Your task to perform on an android device: toggle priority inbox in the gmail app Image 0: 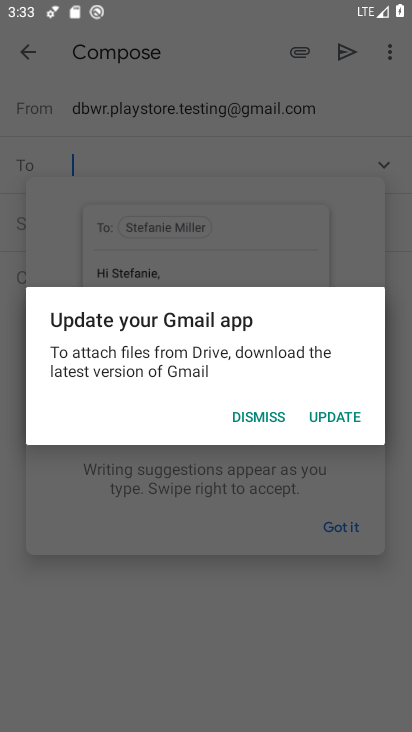
Step 0: press home button
Your task to perform on an android device: toggle priority inbox in the gmail app Image 1: 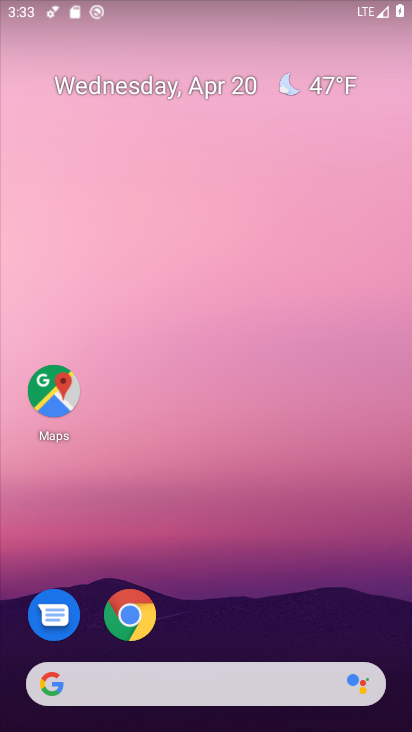
Step 1: drag from (217, 555) to (220, 234)
Your task to perform on an android device: toggle priority inbox in the gmail app Image 2: 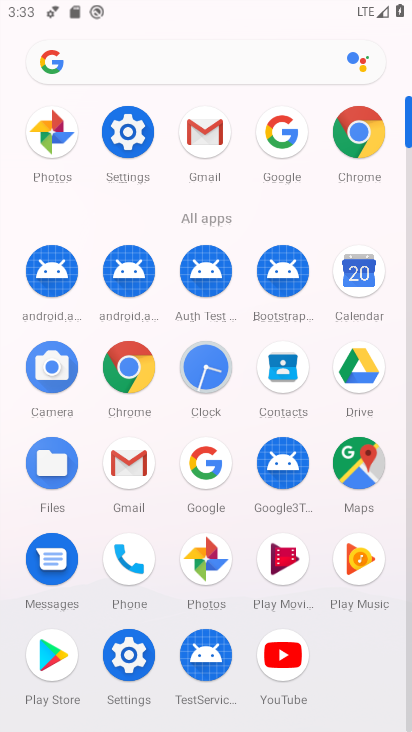
Step 2: click (206, 143)
Your task to perform on an android device: toggle priority inbox in the gmail app Image 3: 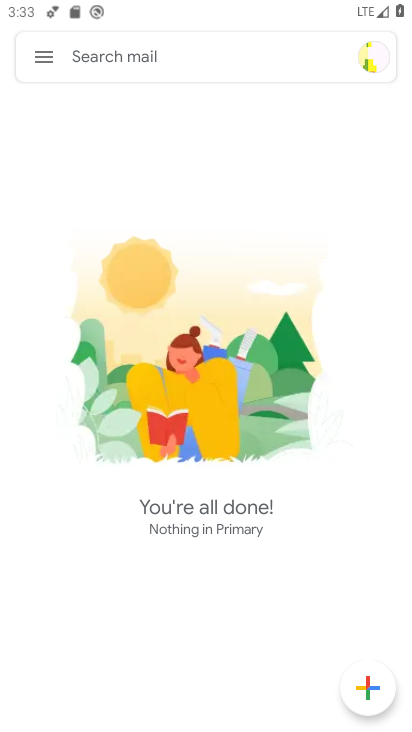
Step 3: click (43, 60)
Your task to perform on an android device: toggle priority inbox in the gmail app Image 4: 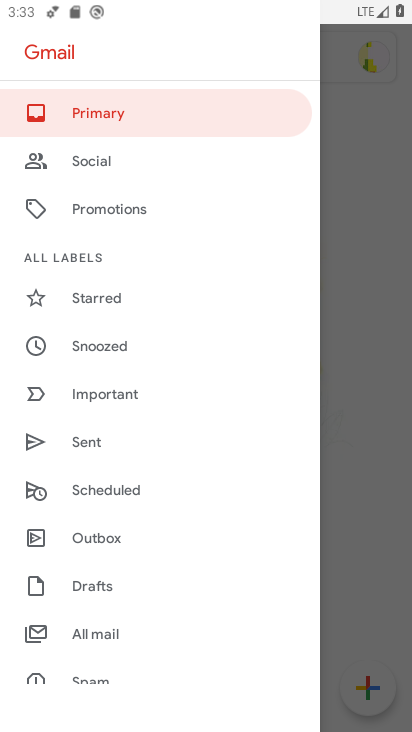
Step 4: drag from (139, 642) to (150, 304)
Your task to perform on an android device: toggle priority inbox in the gmail app Image 5: 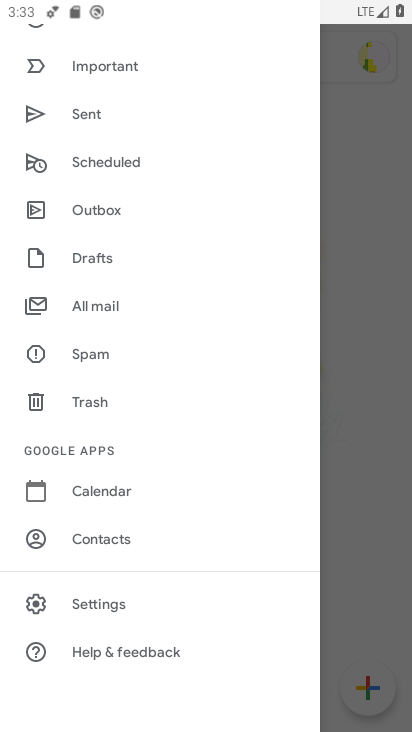
Step 5: click (105, 605)
Your task to perform on an android device: toggle priority inbox in the gmail app Image 6: 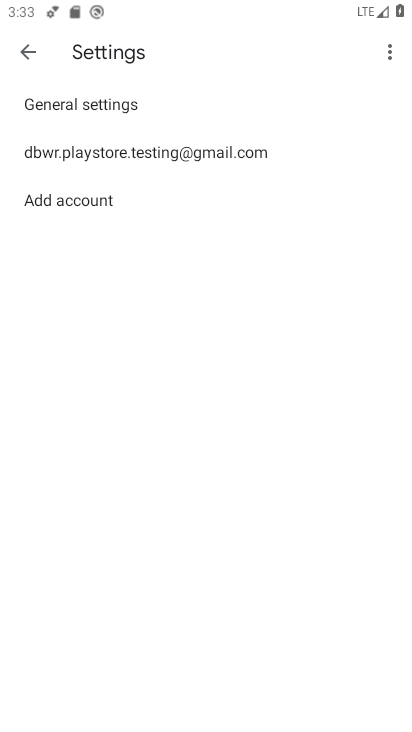
Step 6: click (185, 154)
Your task to perform on an android device: toggle priority inbox in the gmail app Image 7: 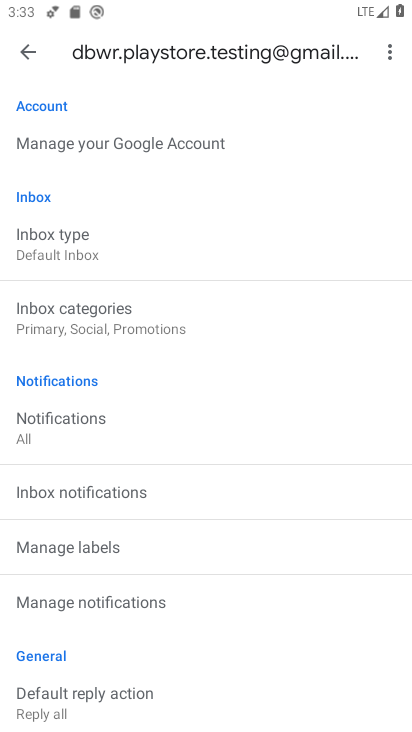
Step 7: click (97, 251)
Your task to perform on an android device: toggle priority inbox in the gmail app Image 8: 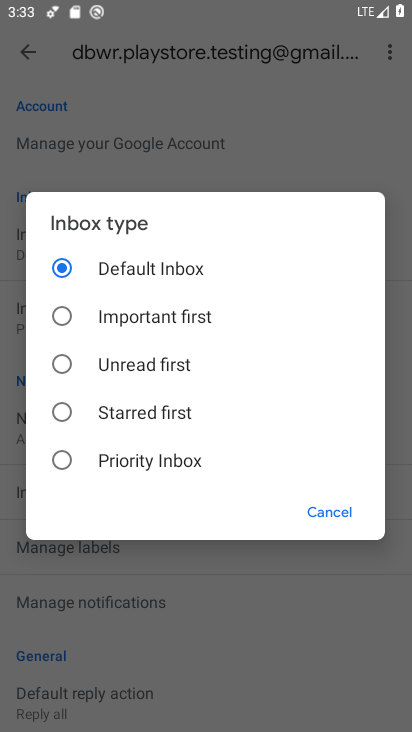
Step 8: click (145, 457)
Your task to perform on an android device: toggle priority inbox in the gmail app Image 9: 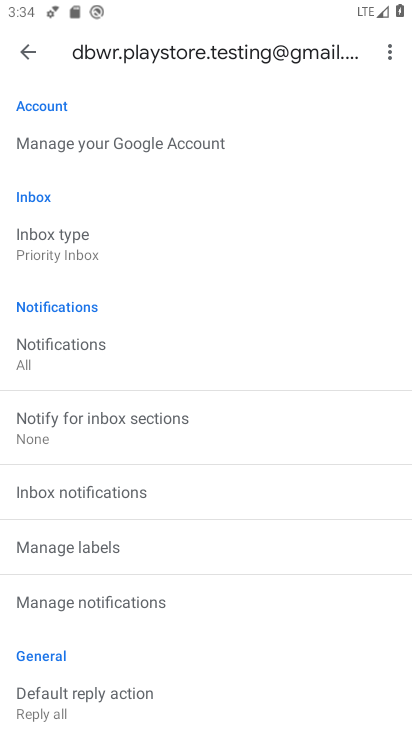
Step 9: task complete